Your task to perform on an android device: Go to eBay Image 0: 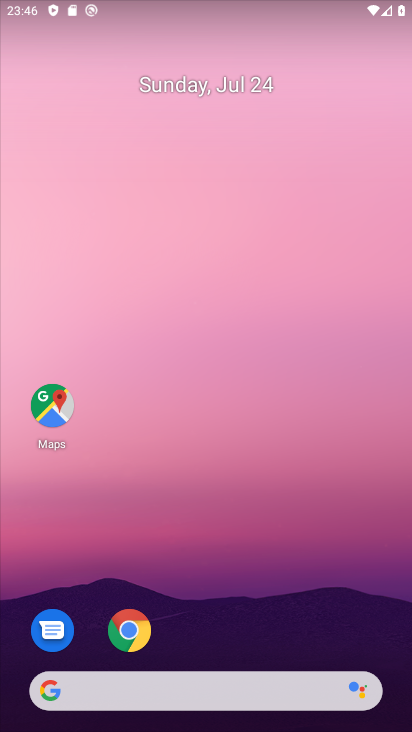
Step 0: press home button
Your task to perform on an android device: Go to eBay Image 1: 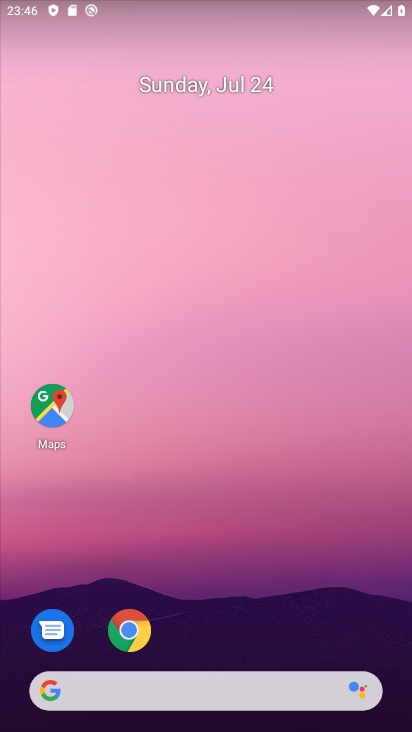
Step 1: click (51, 687)
Your task to perform on an android device: Go to eBay Image 2: 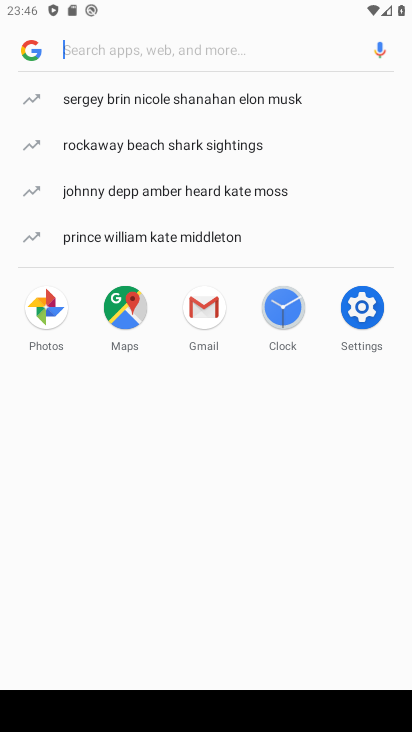
Step 2: type "eBay"
Your task to perform on an android device: Go to eBay Image 3: 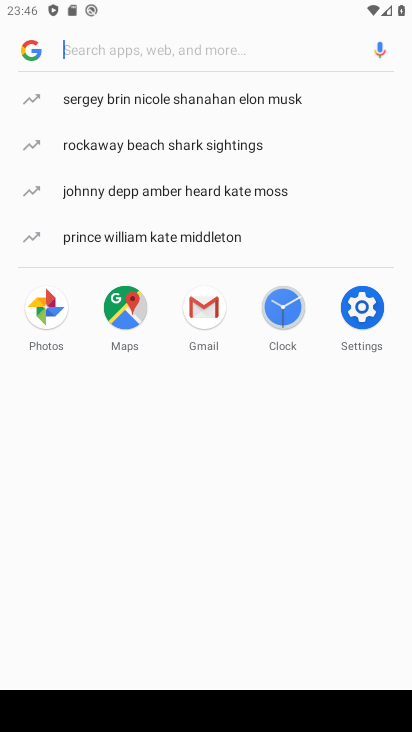
Step 3: click (72, 46)
Your task to perform on an android device: Go to eBay Image 4: 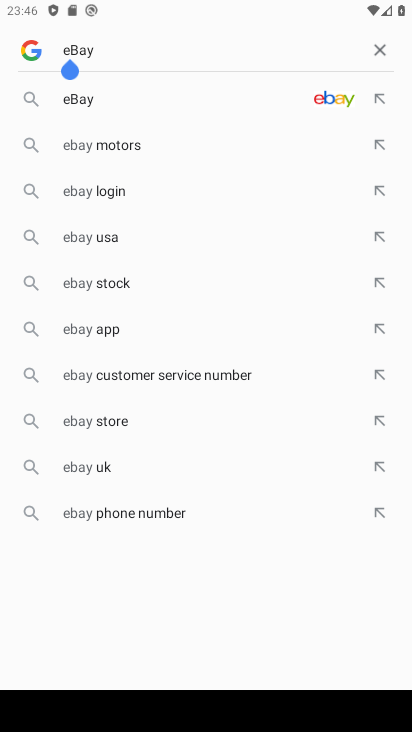
Step 4: click (82, 96)
Your task to perform on an android device: Go to eBay Image 5: 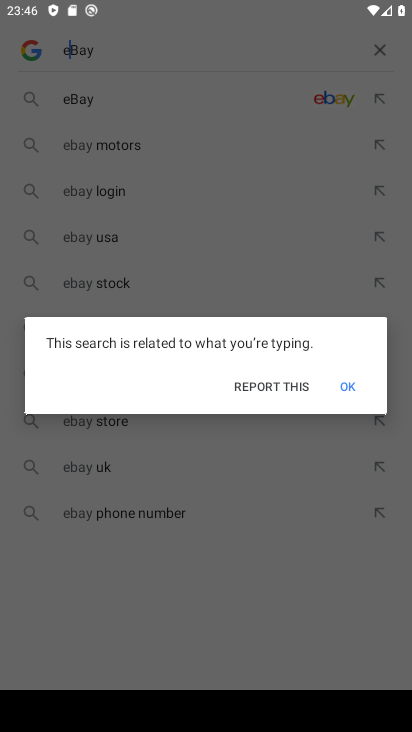
Step 5: click (348, 384)
Your task to perform on an android device: Go to eBay Image 6: 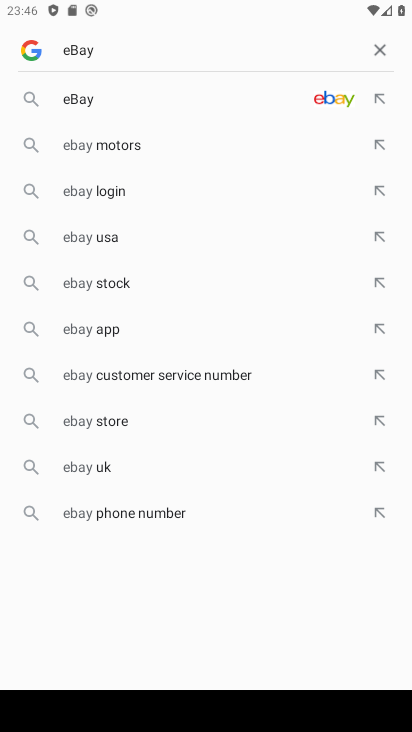
Step 6: click (342, 93)
Your task to perform on an android device: Go to eBay Image 7: 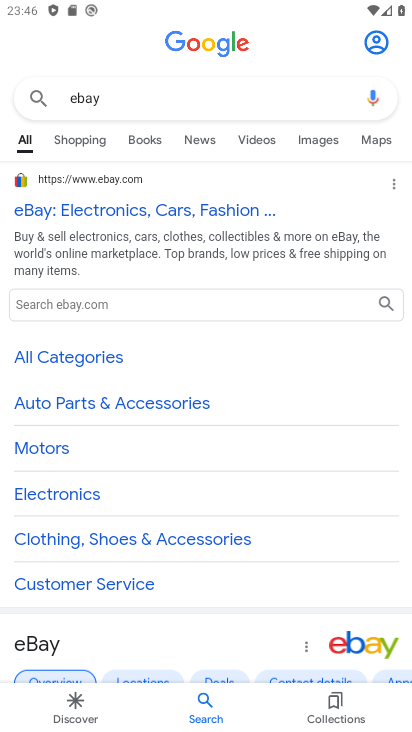
Step 7: click (73, 211)
Your task to perform on an android device: Go to eBay Image 8: 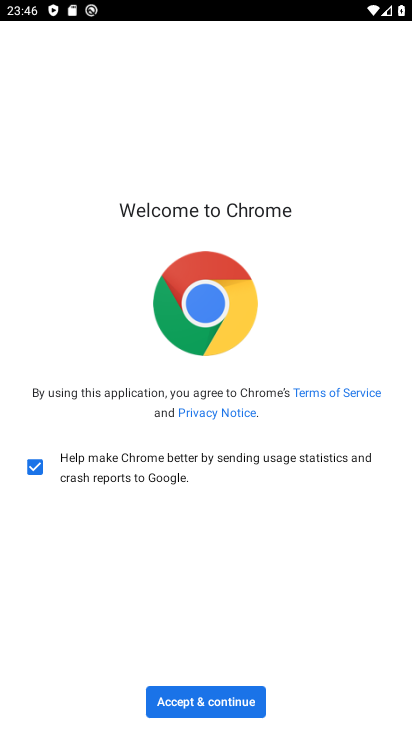
Step 8: click (223, 698)
Your task to perform on an android device: Go to eBay Image 9: 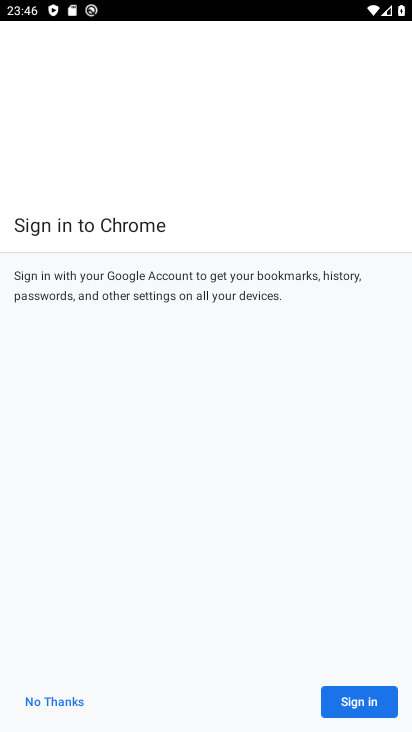
Step 9: click (38, 695)
Your task to perform on an android device: Go to eBay Image 10: 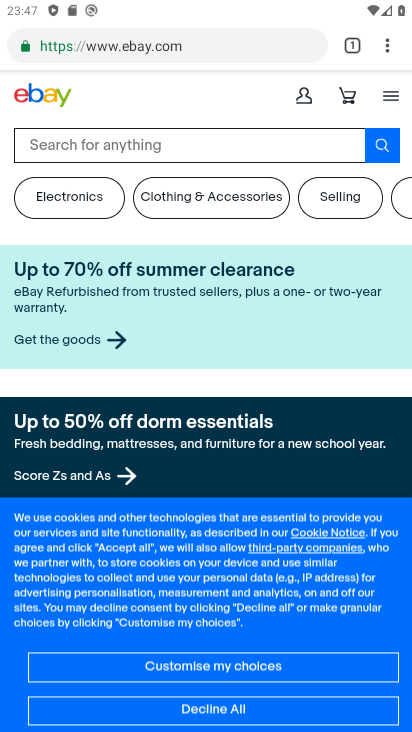
Step 10: task complete